Your task to perform on an android device: turn off location history Image 0: 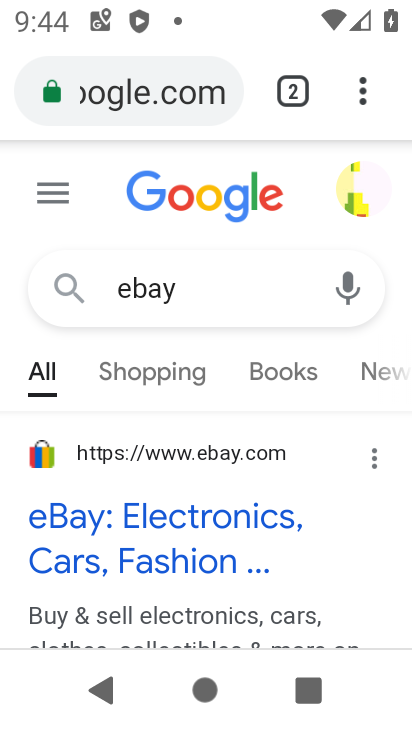
Step 0: press back button
Your task to perform on an android device: turn off location history Image 1: 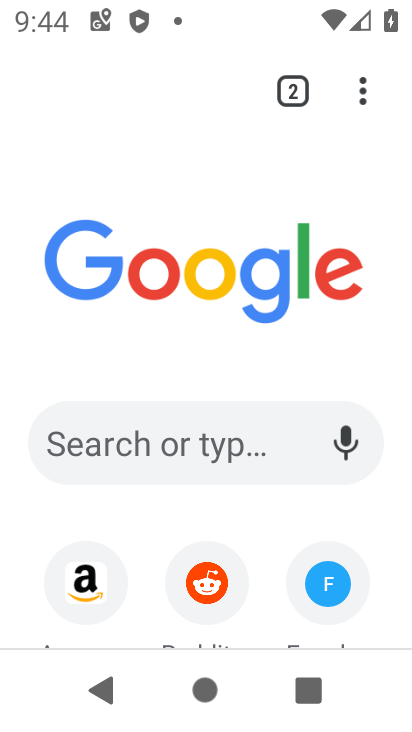
Step 1: press back button
Your task to perform on an android device: turn off location history Image 2: 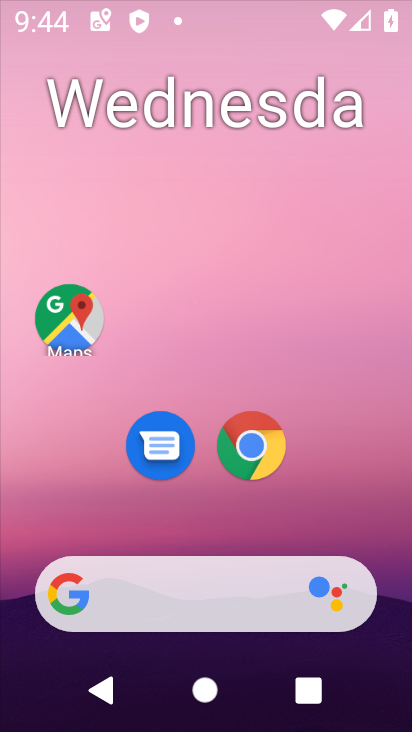
Step 2: drag from (174, 513) to (272, 51)
Your task to perform on an android device: turn off location history Image 3: 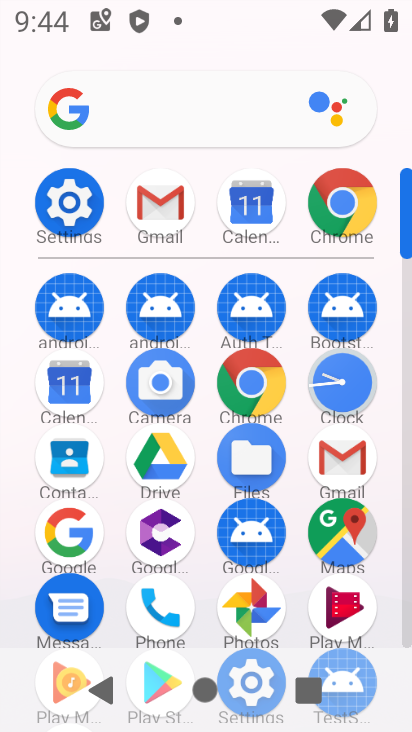
Step 3: click (59, 201)
Your task to perform on an android device: turn off location history Image 4: 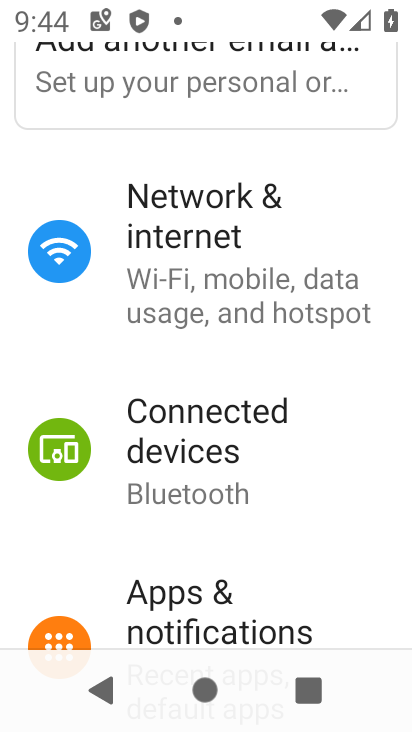
Step 4: drag from (205, 552) to (321, 28)
Your task to perform on an android device: turn off location history Image 5: 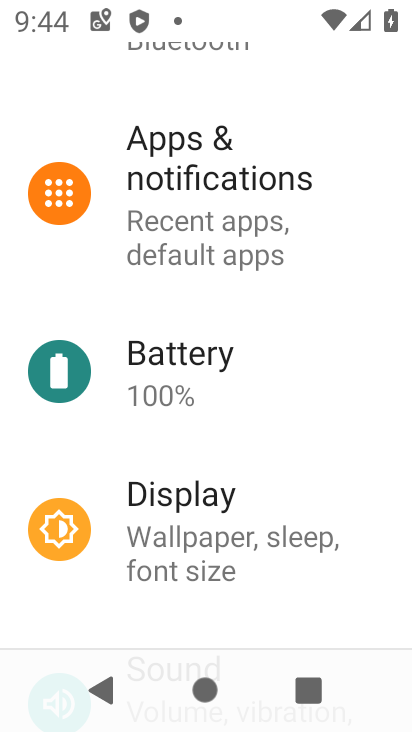
Step 5: drag from (235, 488) to (337, 67)
Your task to perform on an android device: turn off location history Image 6: 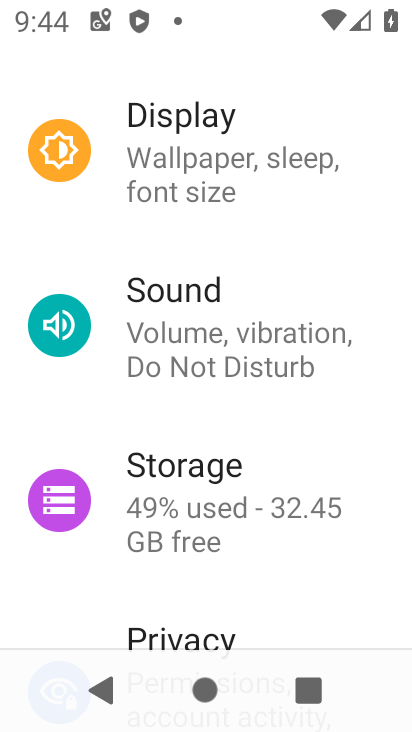
Step 6: drag from (198, 530) to (309, 124)
Your task to perform on an android device: turn off location history Image 7: 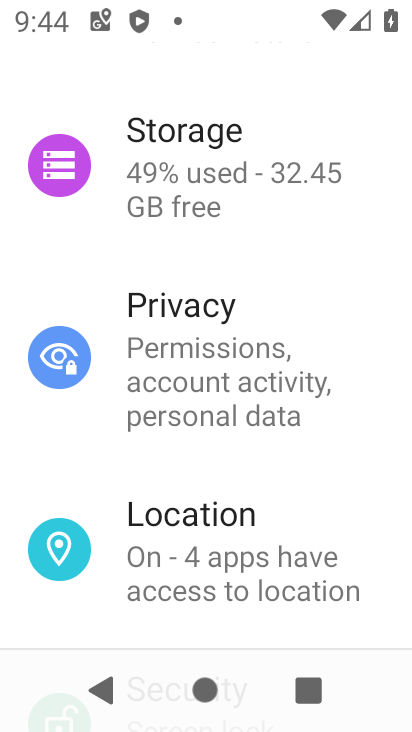
Step 7: click (172, 532)
Your task to perform on an android device: turn off location history Image 8: 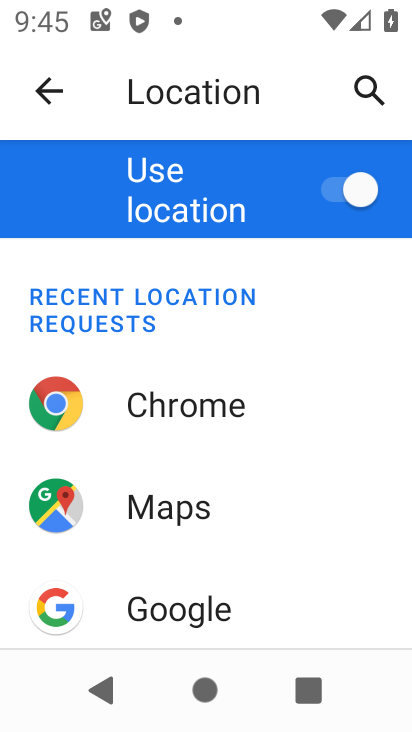
Step 8: drag from (212, 584) to (308, 194)
Your task to perform on an android device: turn off location history Image 9: 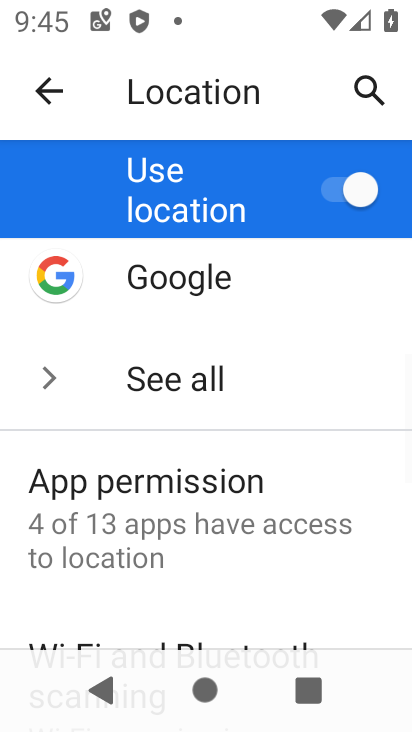
Step 9: drag from (214, 601) to (308, 193)
Your task to perform on an android device: turn off location history Image 10: 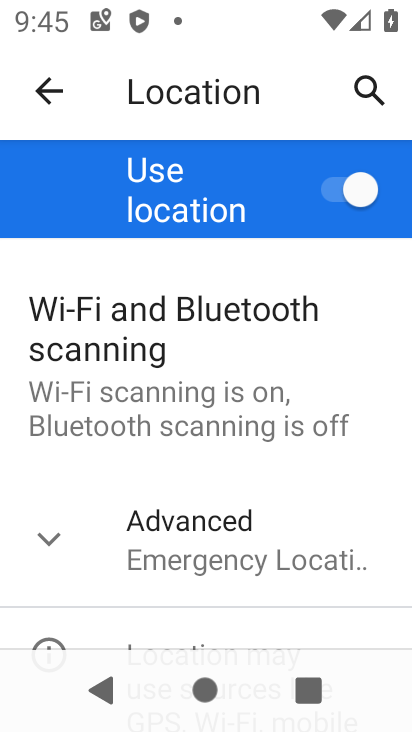
Step 10: click (206, 550)
Your task to perform on an android device: turn off location history Image 11: 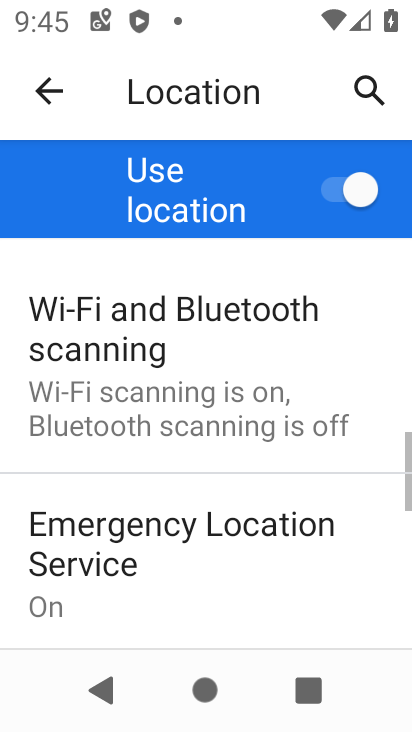
Step 11: drag from (201, 527) to (283, 115)
Your task to perform on an android device: turn off location history Image 12: 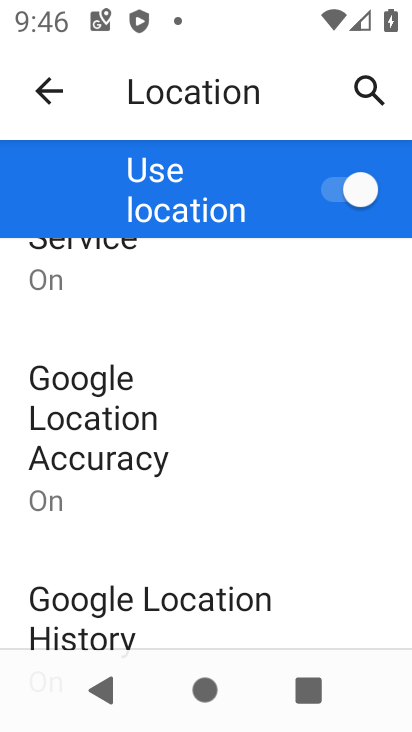
Step 12: drag from (204, 593) to (235, 369)
Your task to perform on an android device: turn off location history Image 13: 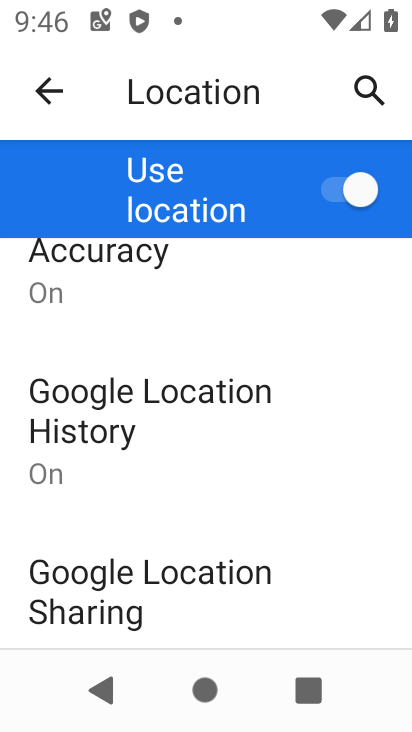
Step 13: click (162, 383)
Your task to perform on an android device: turn off location history Image 14: 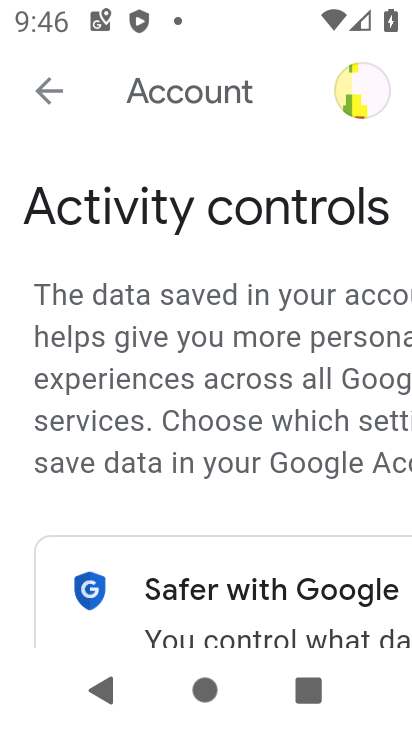
Step 14: drag from (190, 584) to (340, 86)
Your task to perform on an android device: turn off location history Image 15: 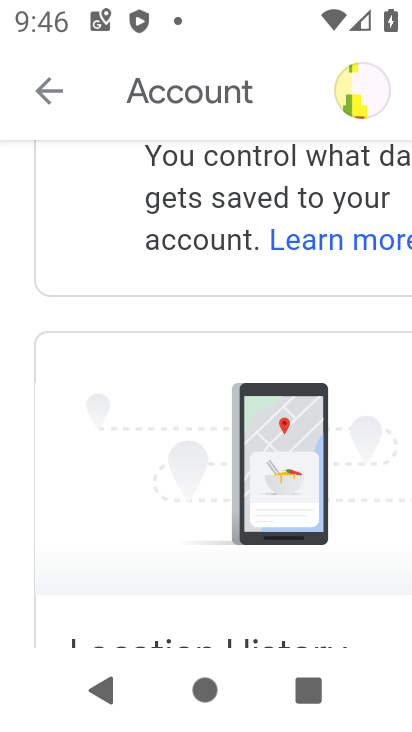
Step 15: drag from (201, 504) to (270, 67)
Your task to perform on an android device: turn off location history Image 16: 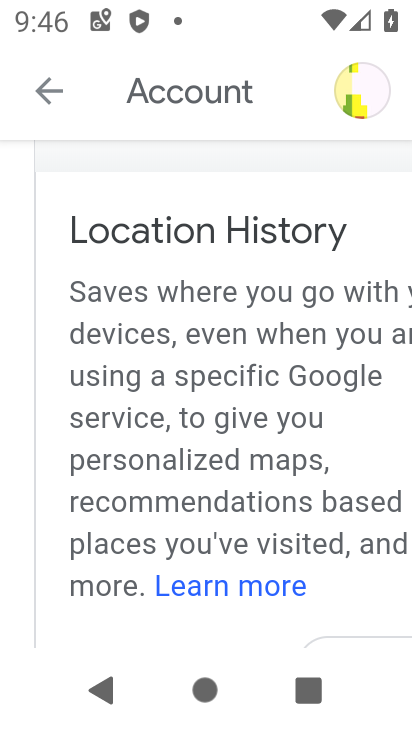
Step 16: drag from (233, 506) to (235, 59)
Your task to perform on an android device: turn off location history Image 17: 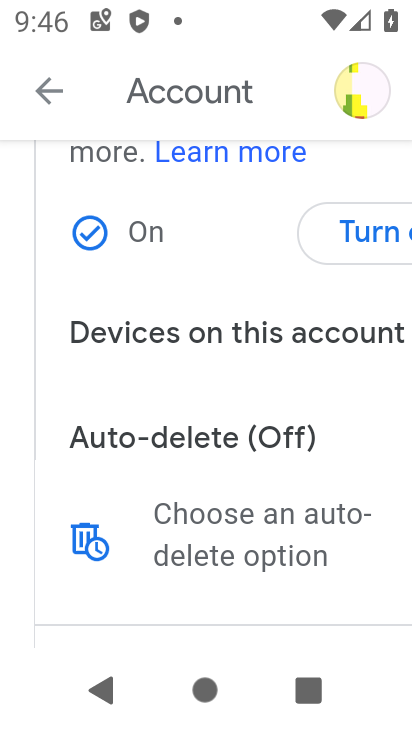
Step 17: click (354, 243)
Your task to perform on an android device: turn off location history Image 18: 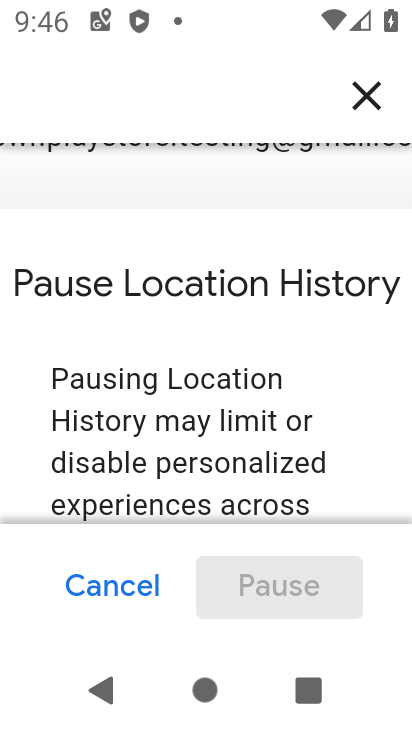
Step 18: drag from (236, 431) to (347, 28)
Your task to perform on an android device: turn off location history Image 19: 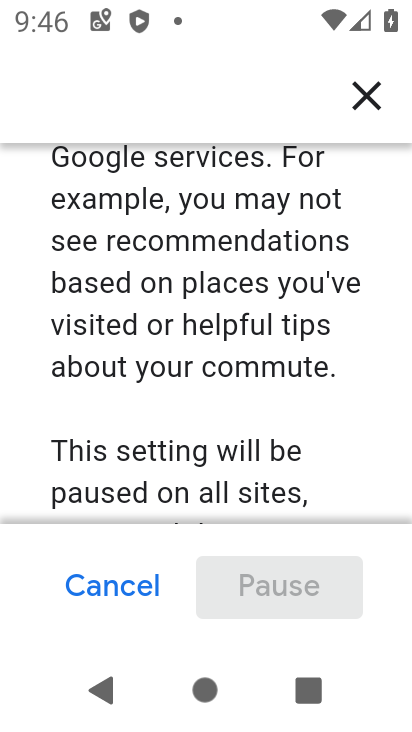
Step 19: drag from (201, 411) to (317, 8)
Your task to perform on an android device: turn off location history Image 20: 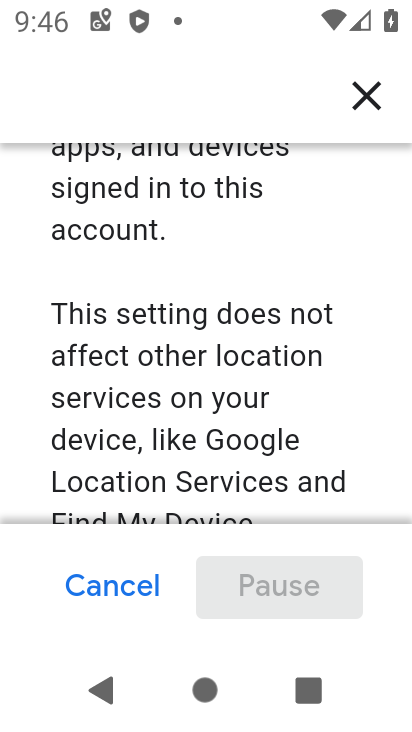
Step 20: drag from (247, 473) to (378, 8)
Your task to perform on an android device: turn off location history Image 21: 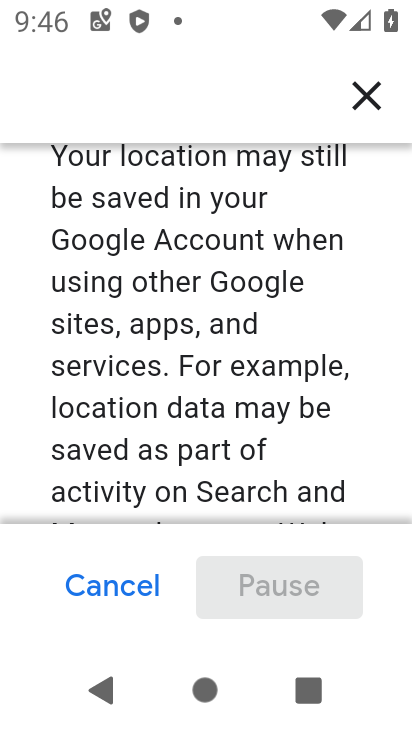
Step 21: drag from (204, 440) to (335, 8)
Your task to perform on an android device: turn off location history Image 22: 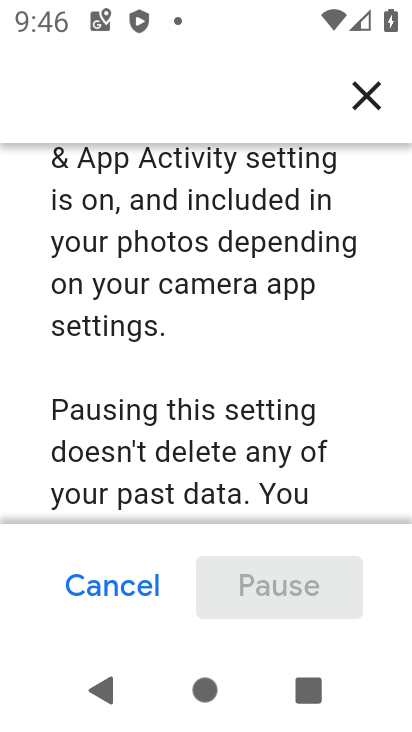
Step 22: drag from (185, 413) to (296, 62)
Your task to perform on an android device: turn off location history Image 23: 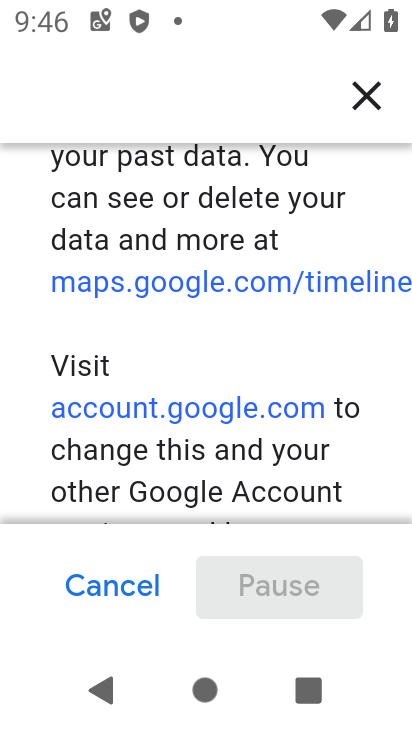
Step 23: drag from (211, 421) to (280, 52)
Your task to perform on an android device: turn off location history Image 24: 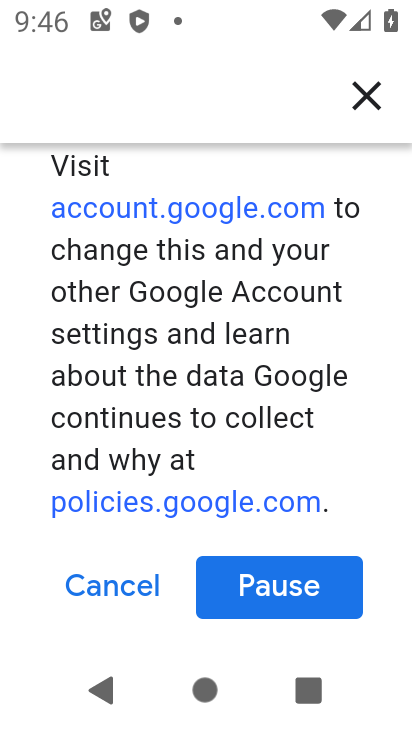
Step 24: click (196, 466)
Your task to perform on an android device: turn off location history Image 25: 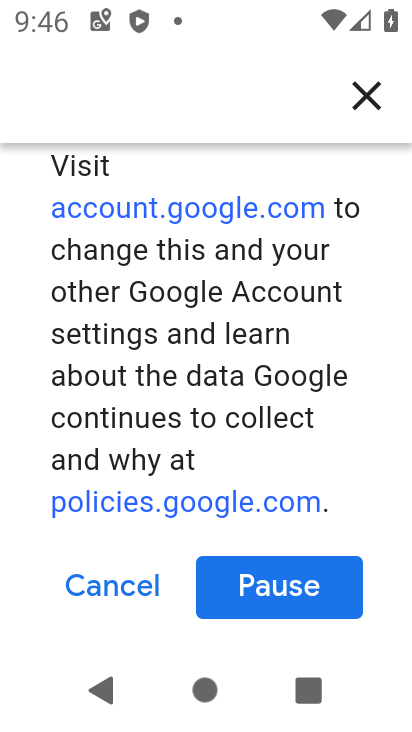
Step 25: click (272, 589)
Your task to perform on an android device: turn off location history Image 26: 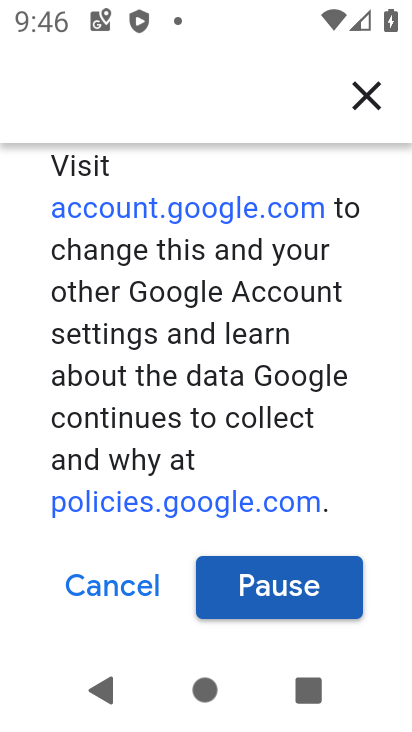
Step 26: click (272, 591)
Your task to perform on an android device: turn off location history Image 27: 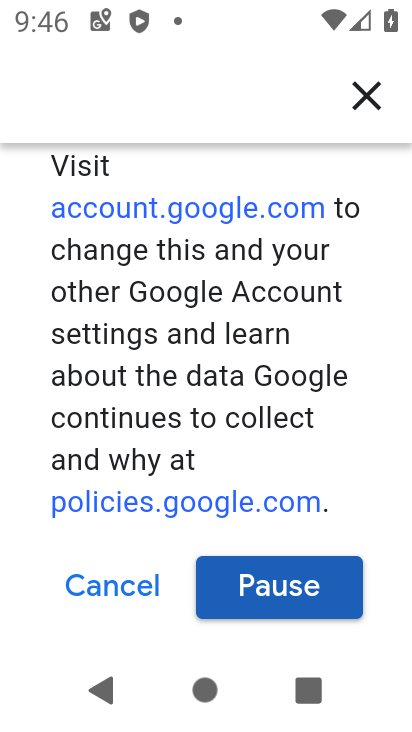
Step 27: click (297, 601)
Your task to perform on an android device: turn off location history Image 28: 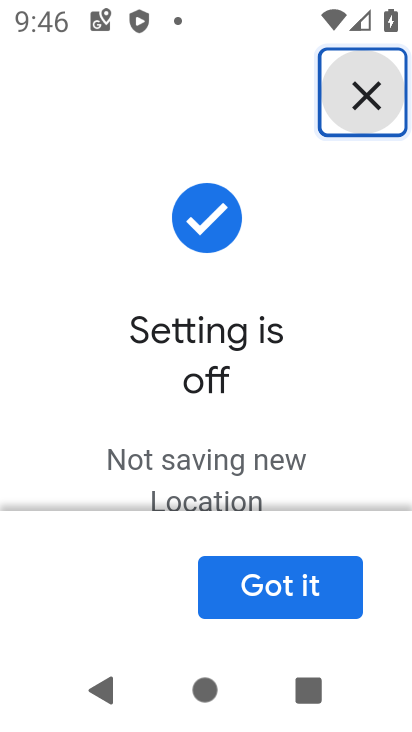
Step 28: click (292, 586)
Your task to perform on an android device: turn off location history Image 29: 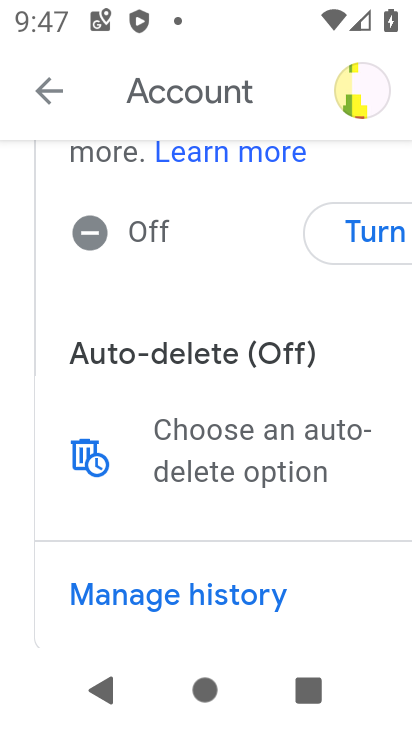
Step 29: task complete